Your task to perform on an android device: What's the weather going to be tomorrow? Image 0: 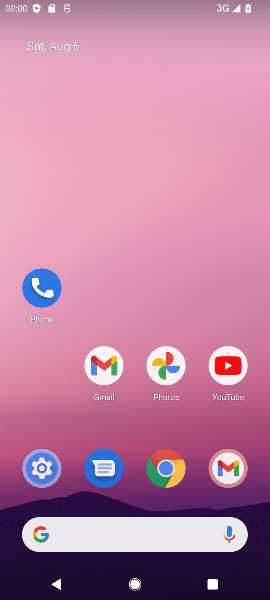
Step 0: press home button
Your task to perform on an android device: What's the weather going to be tomorrow? Image 1: 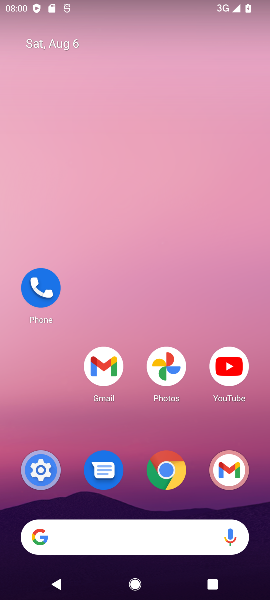
Step 1: drag from (120, 534) to (82, 191)
Your task to perform on an android device: What's the weather going to be tomorrow? Image 2: 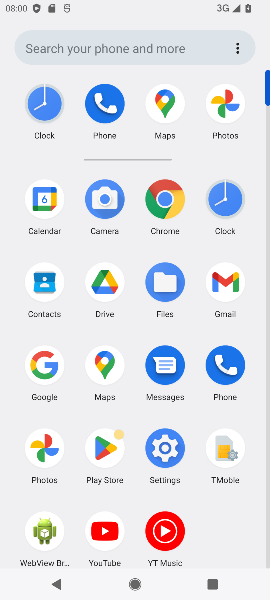
Step 2: click (186, 214)
Your task to perform on an android device: What's the weather going to be tomorrow? Image 3: 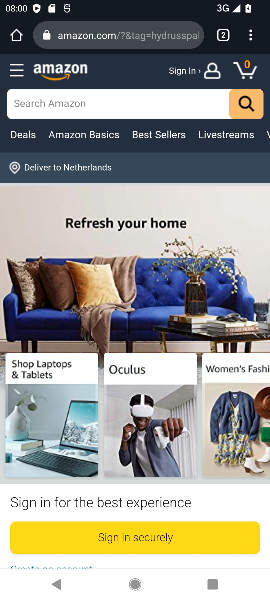
Step 3: click (141, 28)
Your task to perform on an android device: What's the weather going to be tomorrow? Image 4: 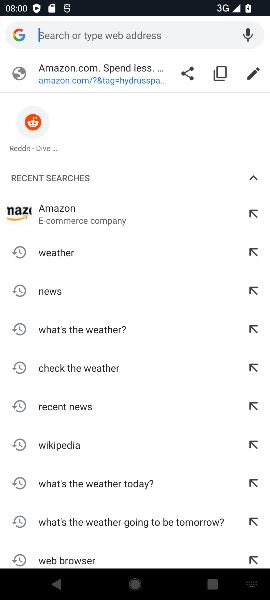
Step 4: type "What's the weather going to be tomorrow?"
Your task to perform on an android device: What's the weather going to be tomorrow? Image 5: 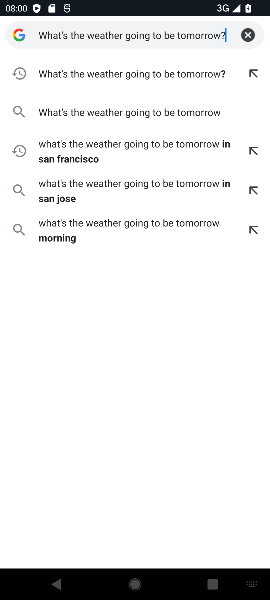
Step 5: type ""
Your task to perform on an android device: What's the weather going to be tomorrow? Image 6: 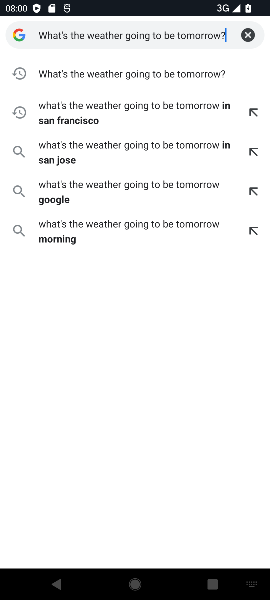
Step 6: click (106, 65)
Your task to perform on an android device: What's the weather going to be tomorrow? Image 7: 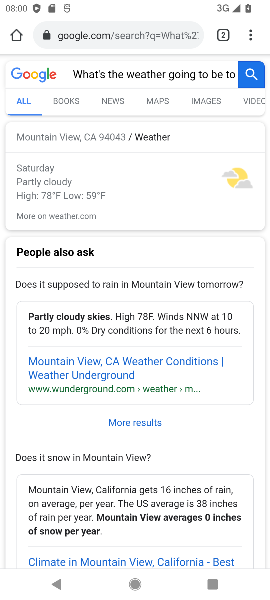
Step 7: task complete